Your task to perform on an android device: Go to Yahoo.com Image 0: 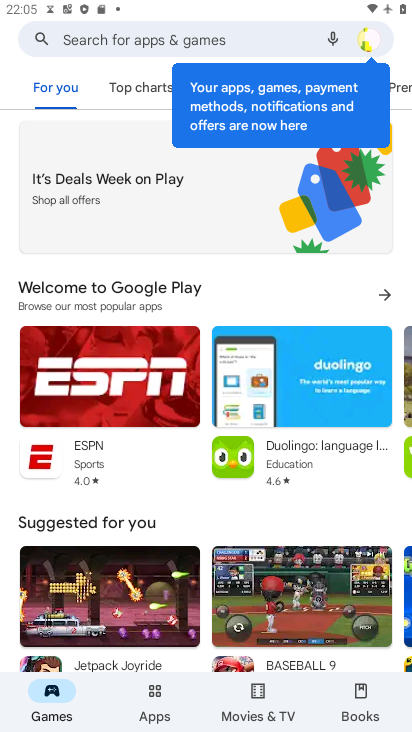
Step 0: press home button
Your task to perform on an android device: Go to Yahoo.com Image 1: 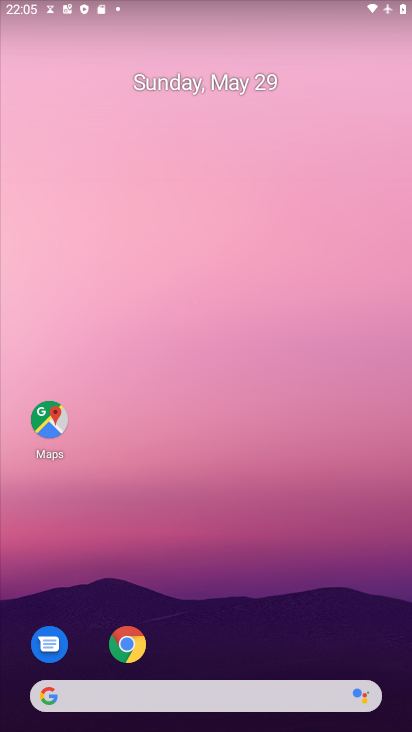
Step 1: click (126, 641)
Your task to perform on an android device: Go to Yahoo.com Image 2: 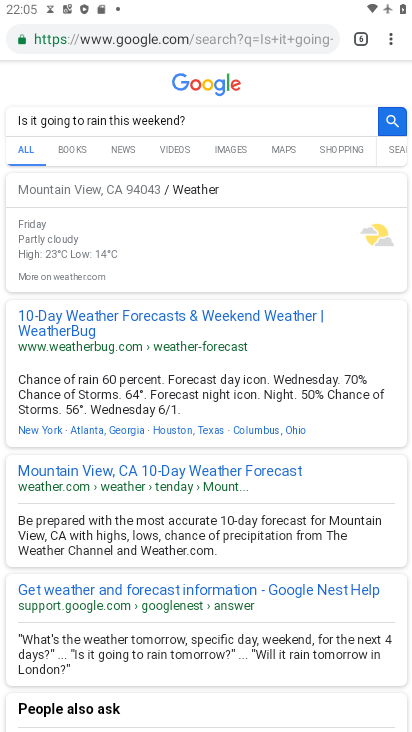
Step 2: click (389, 37)
Your task to perform on an android device: Go to Yahoo.com Image 3: 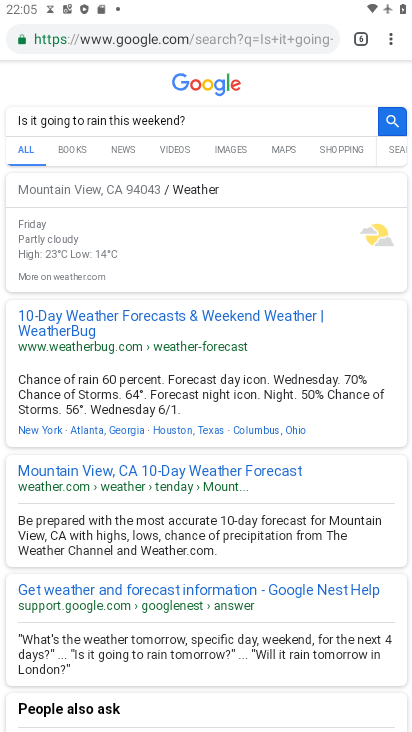
Step 3: click (397, 33)
Your task to perform on an android device: Go to Yahoo.com Image 4: 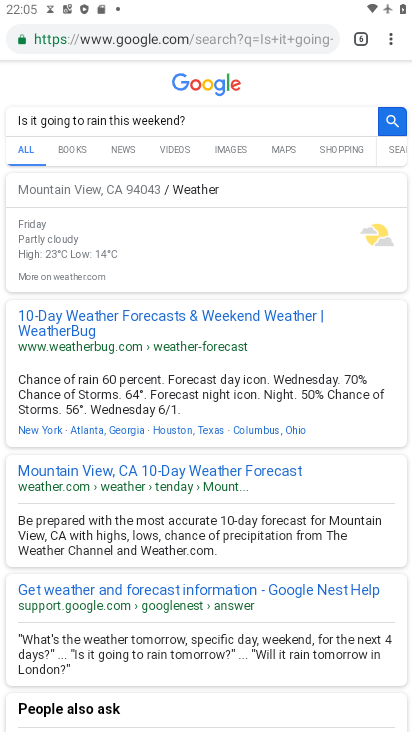
Step 4: click (391, 37)
Your task to perform on an android device: Go to Yahoo.com Image 5: 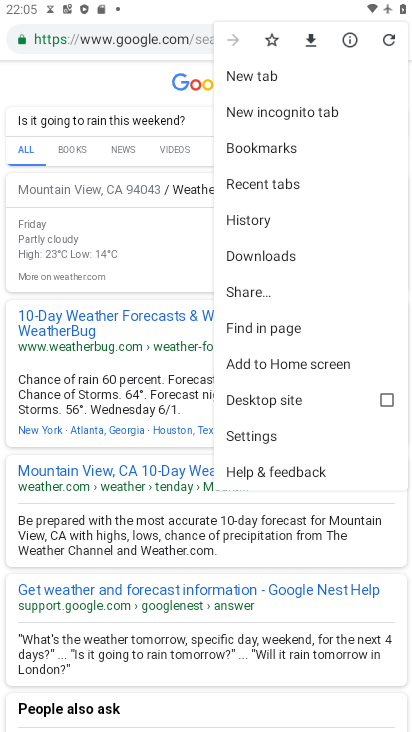
Step 5: click (271, 84)
Your task to perform on an android device: Go to Yahoo.com Image 6: 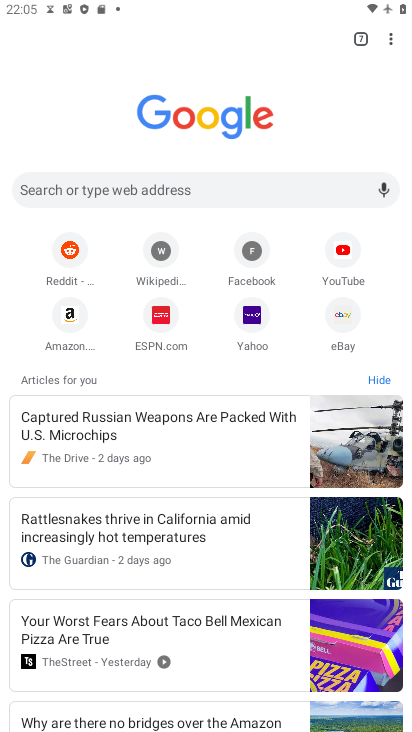
Step 6: click (259, 323)
Your task to perform on an android device: Go to Yahoo.com Image 7: 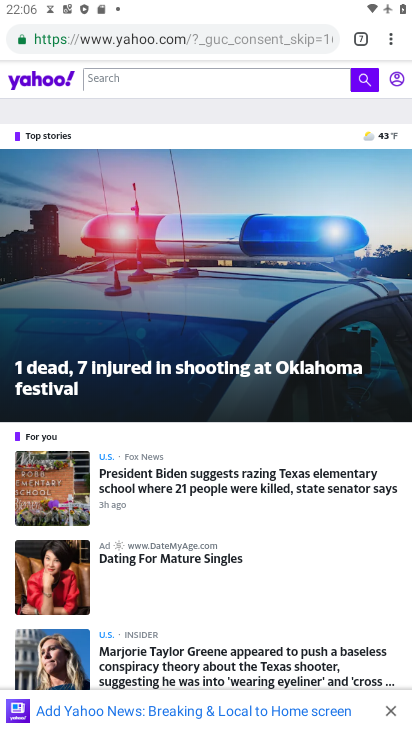
Step 7: task complete